Your task to perform on an android device: open app "Spotify" (install if not already installed) and go to login screen Image 0: 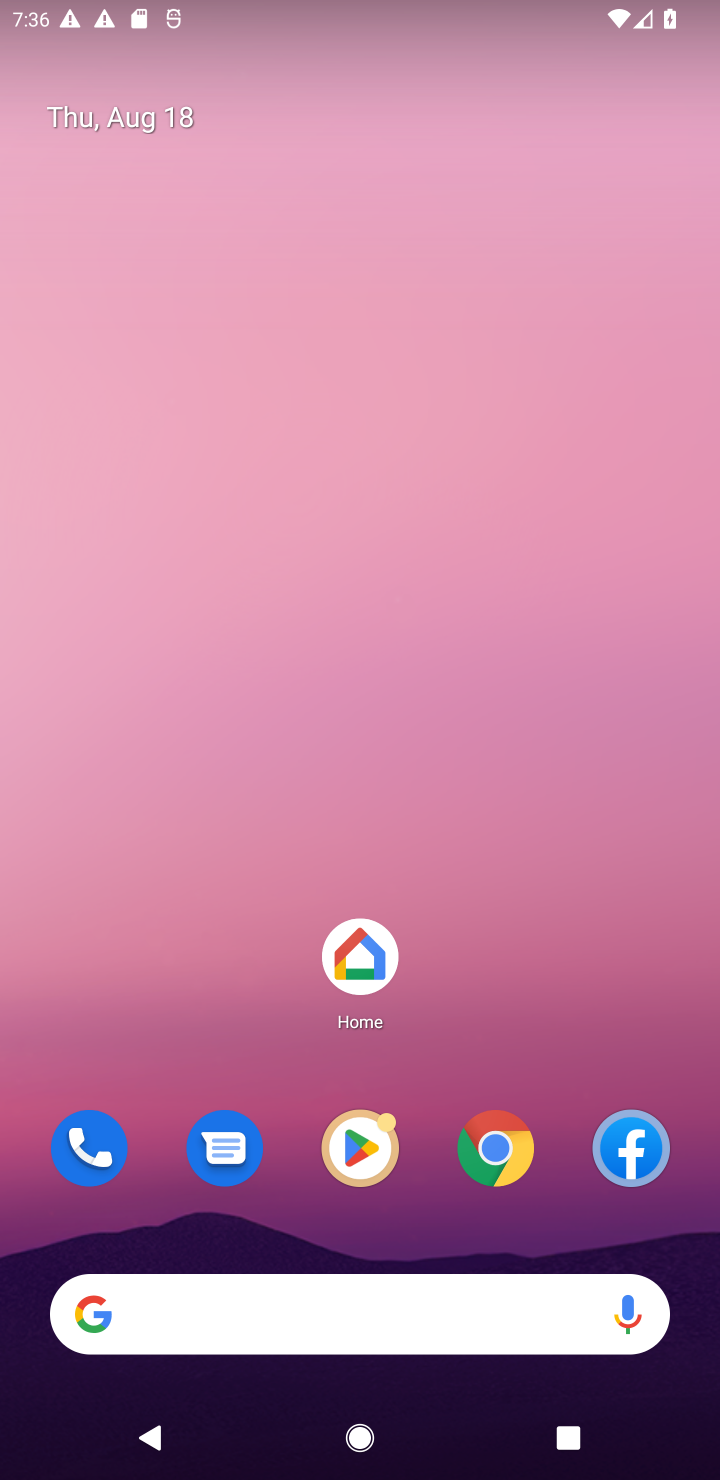
Step 0: drag from (270, 693) to (324, 105)
Your task to perform on an android device: open app "Spotify" (install if not already installed) and go to login screen Image 1: 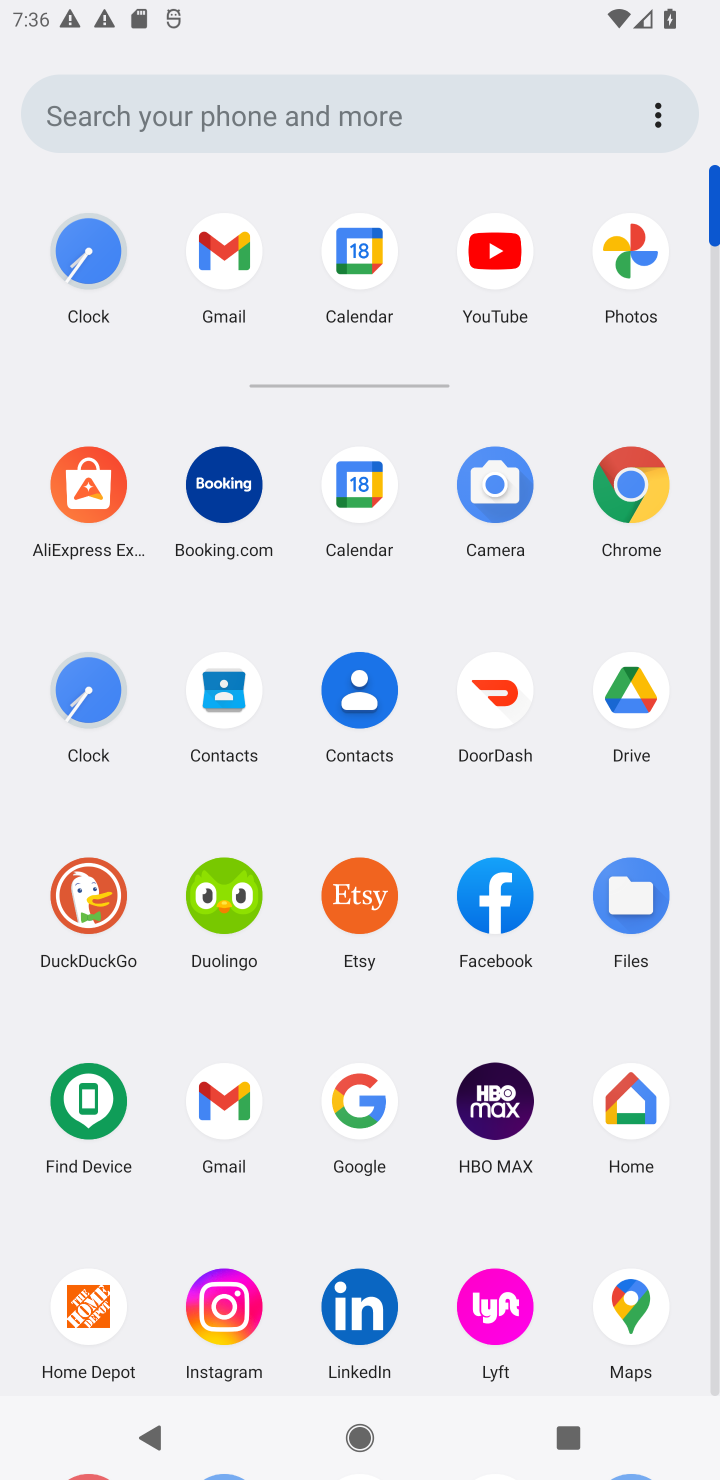
Step 1: drag from (381, 1042) to (536, 190)
Your task to perform on an android device: open app "Spotify" (install if not already installed) and go to login screen Image 2: 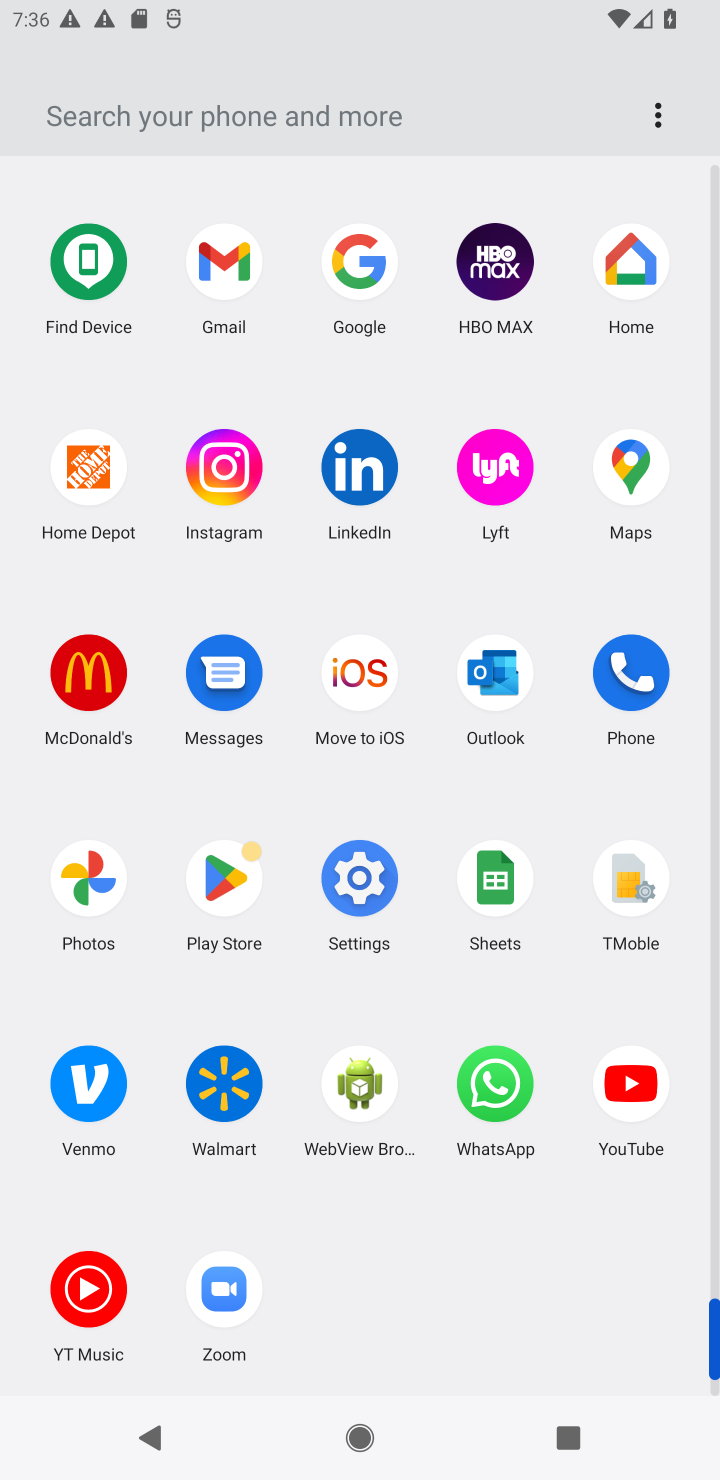
Step 2: click (227, 855)
Your task to perform on an android device: open app "Spotify" (install if not already installed) and go to login screen Image 3: 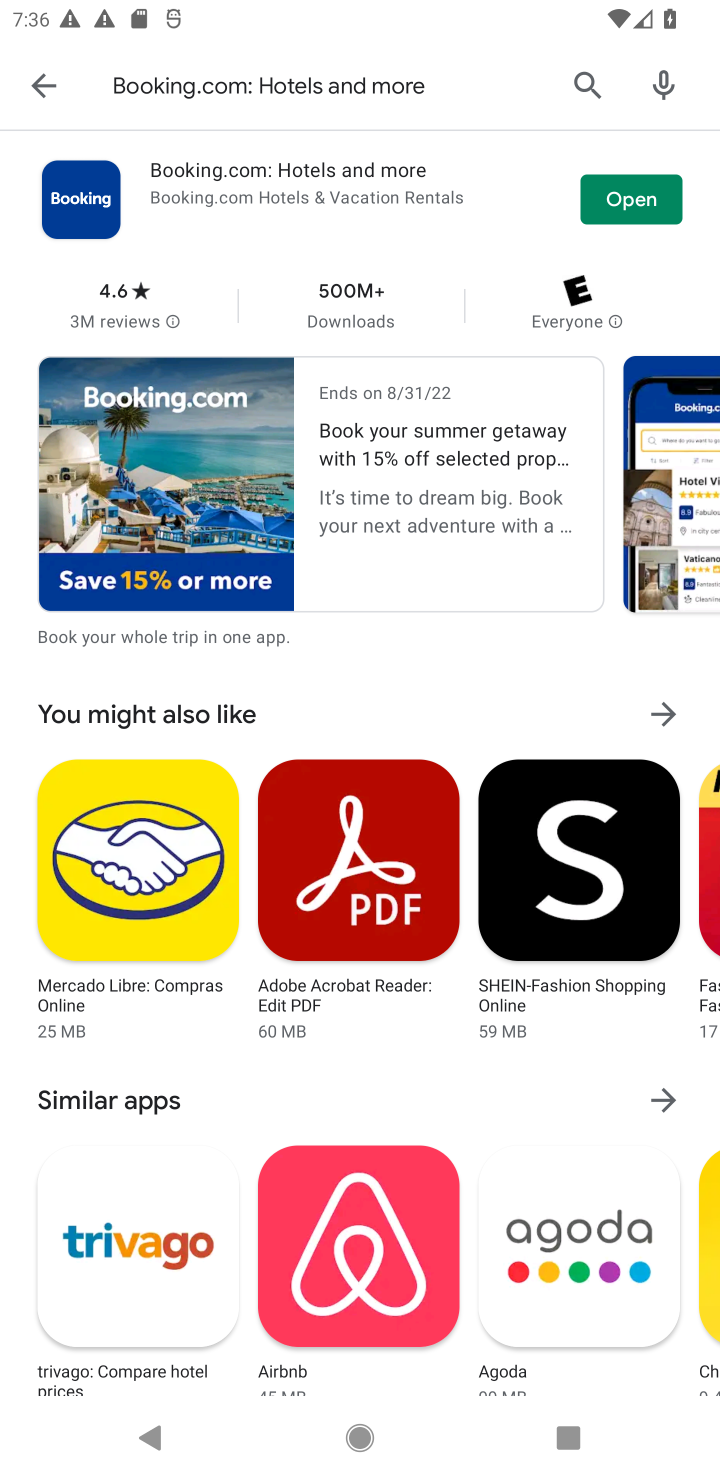
Step 3: press back button
Your task to perform on an android device: open app "Spotify" (install if not already installed) and go to login screen Image 4: 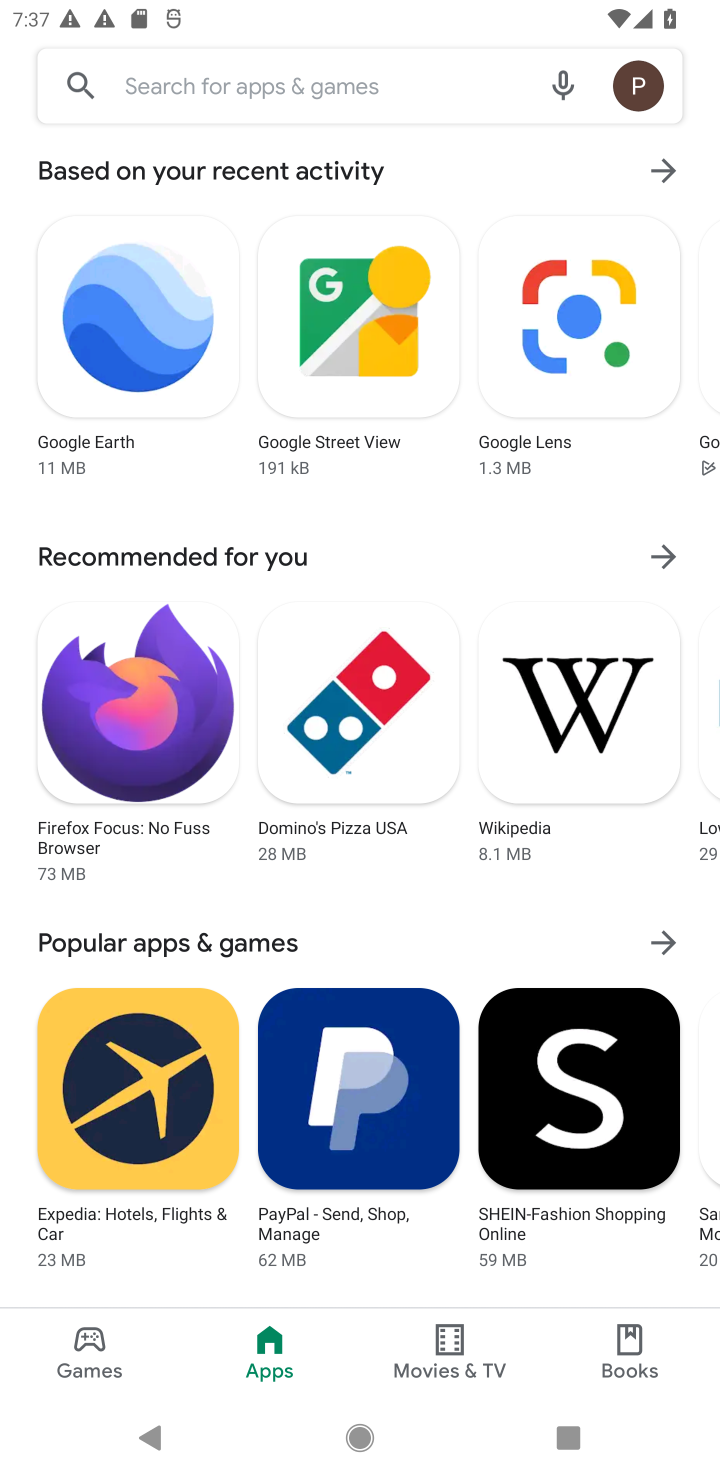
Step 4: click (232, 112)
Your task to perform on an android device: open app "Spotify" (install if not already installed) and go to login screen Image 5: 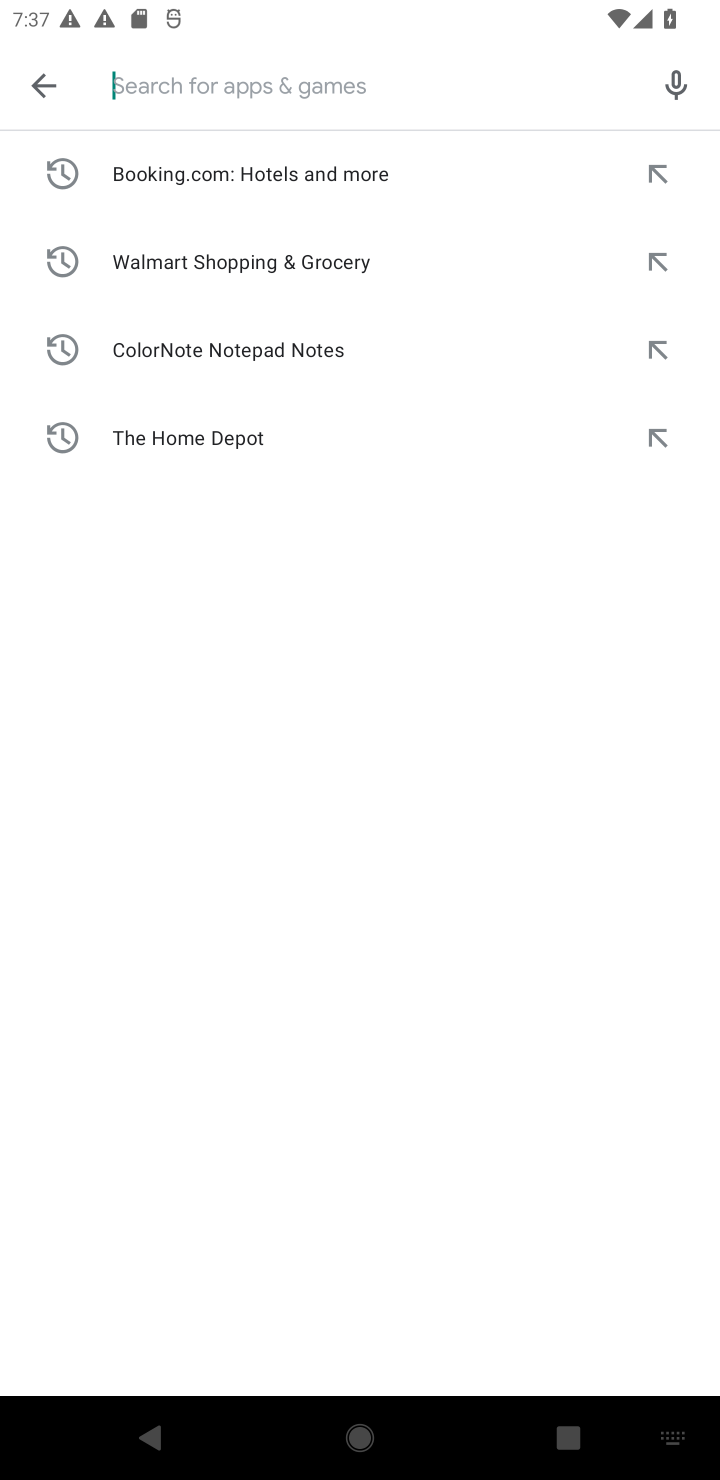
Step 5: type "Spotify"
Your task to perform on an android device: open app "Spotify" (install if not already installed) and go to login screen Image 6: 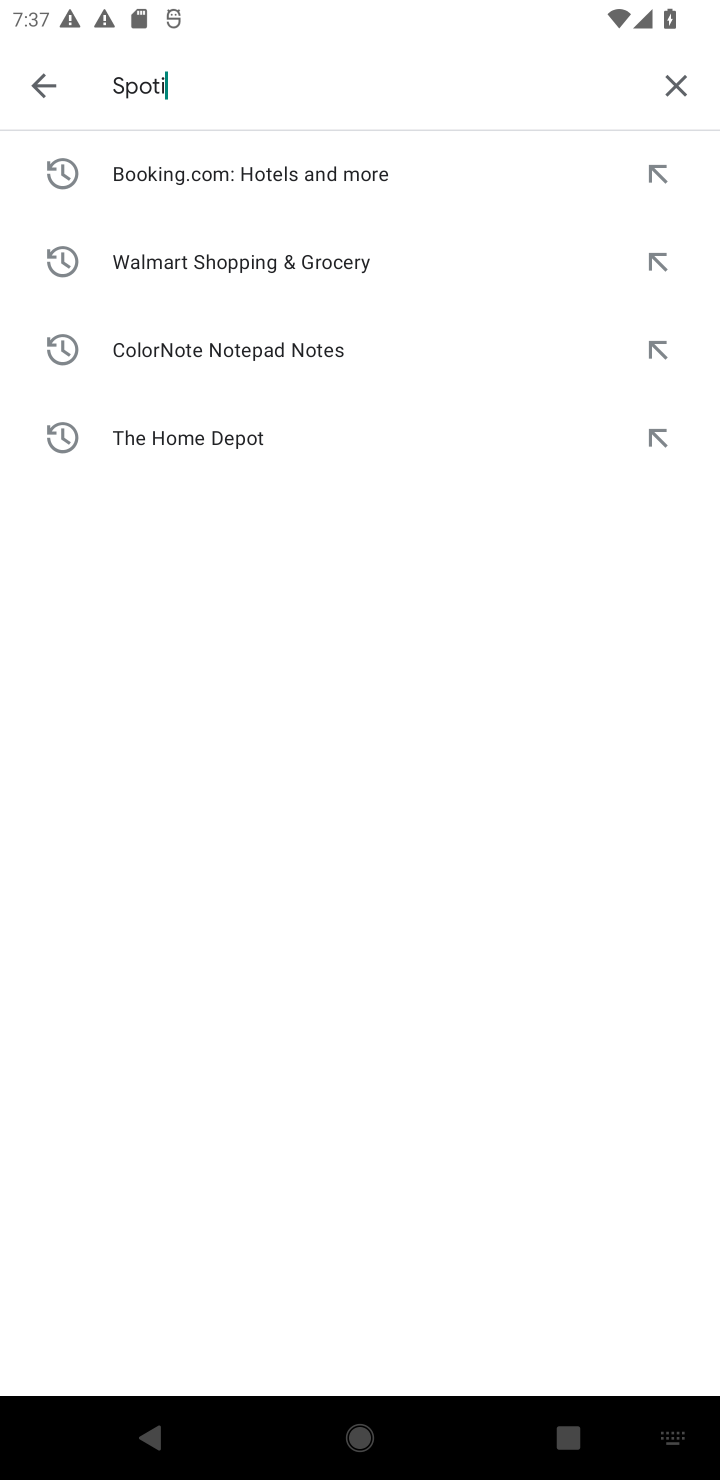
Step 6: press enter
Your task to perform on an android device: open app "Spotify" (install if not already installed) and go to login screen Image 7: 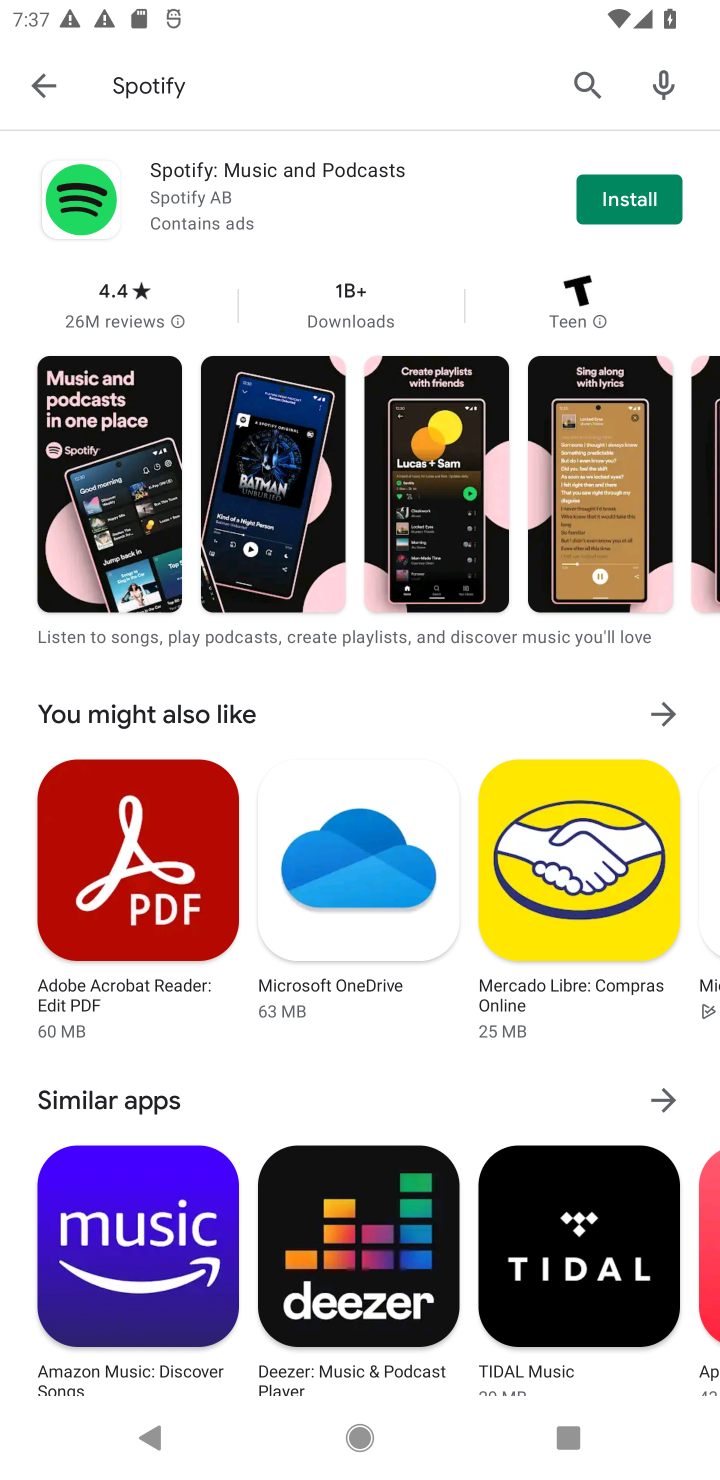
Step 7: click (594, 195)
Your task to perform on an android device: open app "Spotify" (install if not already installed) and go to login screen Image 8: 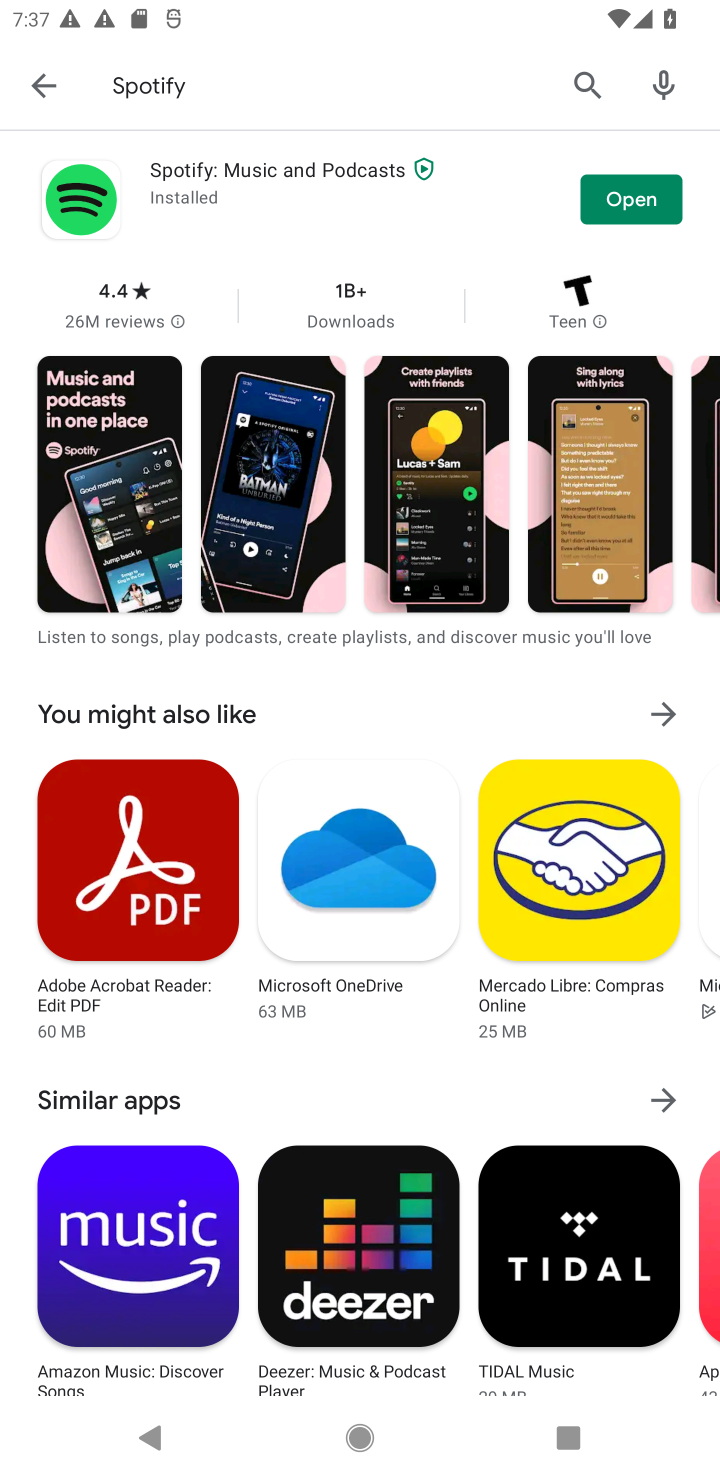
Step 8: click (595, 212)
Your task to perform on an android device: open app "Spotify" (install if not already installed) and go to login screen Image 9: 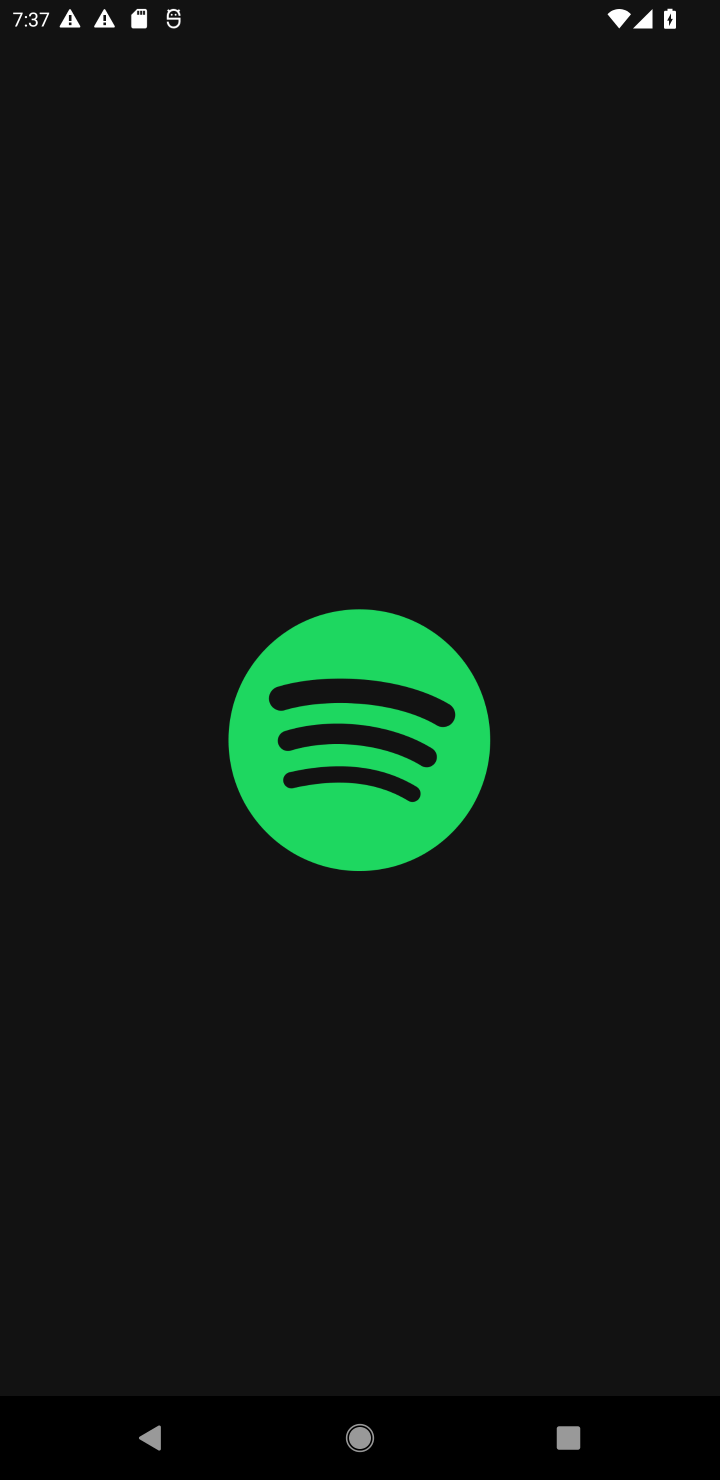
Step 9: task complete